Your task to perform on an android device: check android version Image 0: 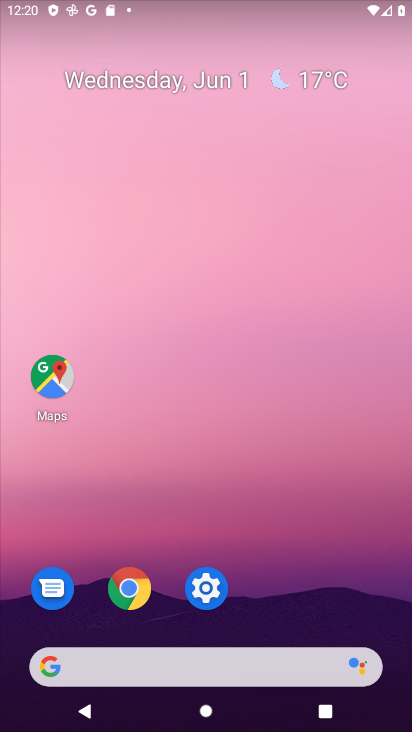
Step 0: drag from (279, 684) to (275, 574)
Your task to perform on an android device: check android version Image 1: 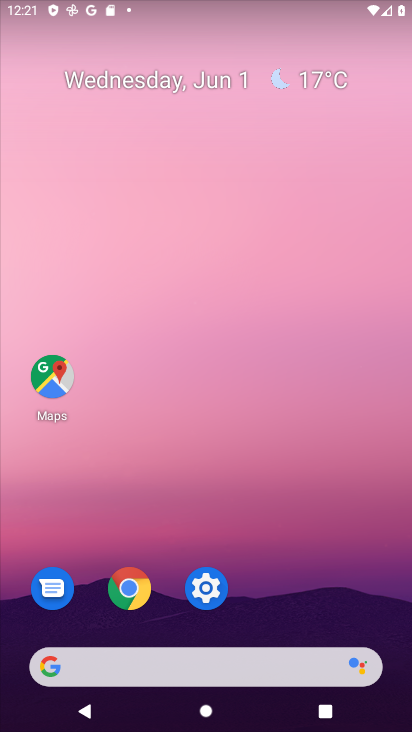
Step 1: click (201, 581)
Your task to perform on an android device: check android version Image 2: 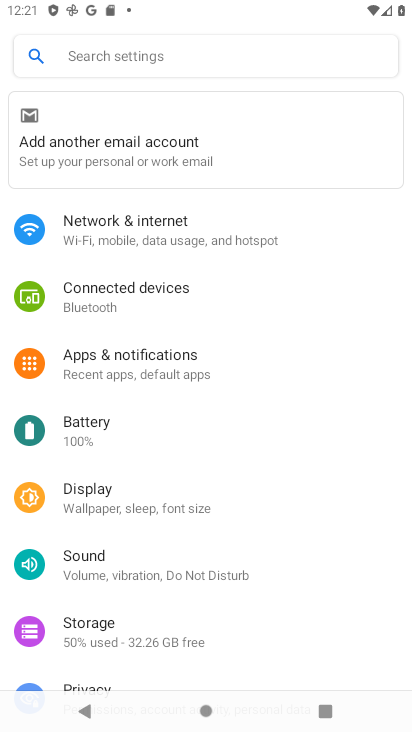
Step 2: click (108, 55)
Your task to perform on an android device: check android version Image 3: 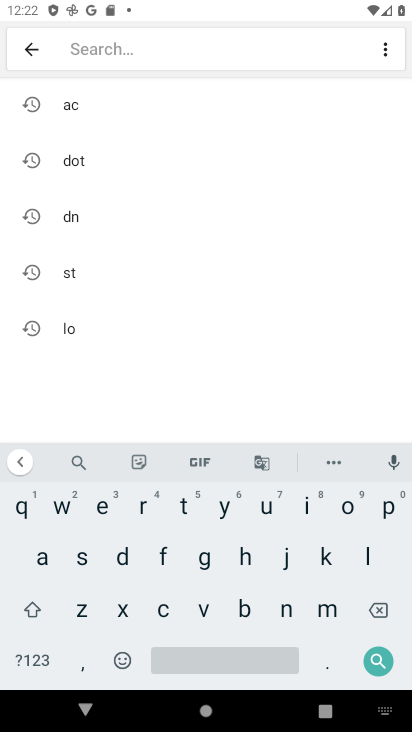
Step 3: click (28, 560)
Your task to perform on an android device: check android version Image 4: 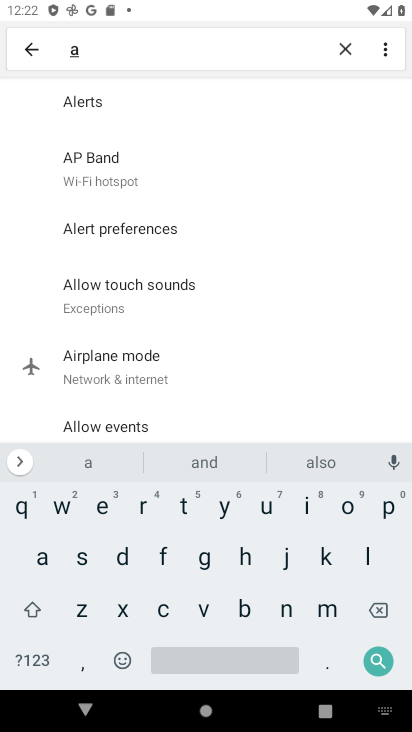
Step 4: click (283, 613)
Your task to perform on an android device: check android version Image 5: 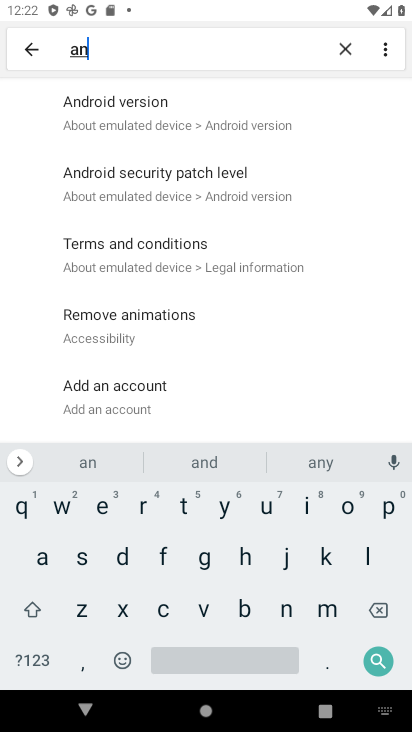
Step 5: click (170, 117)
Your task to perform on an android device: check android version Image 6: 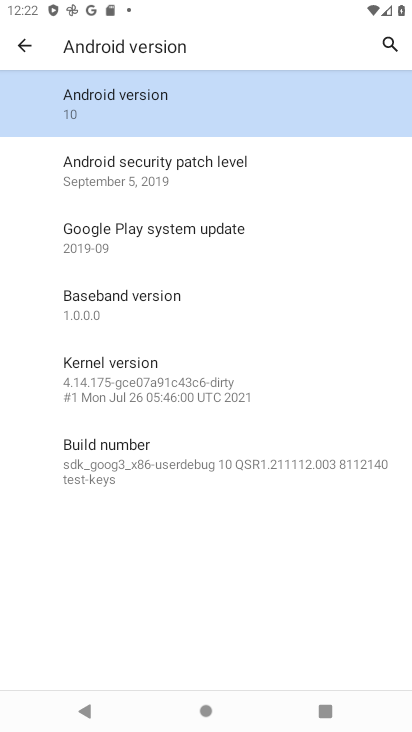
Step 6: task complete